Your task to perform on an android device: Open sound settings Image 0: 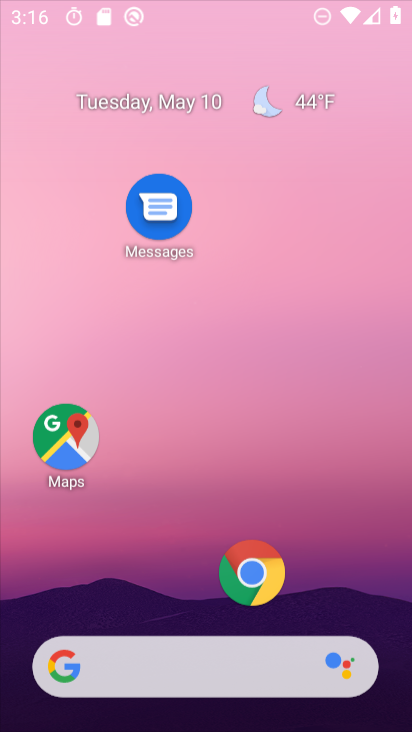
Step 0: drag from (188, 449) to (194, 201)
Your task to perform on an android device: Open sound settings Image 1: 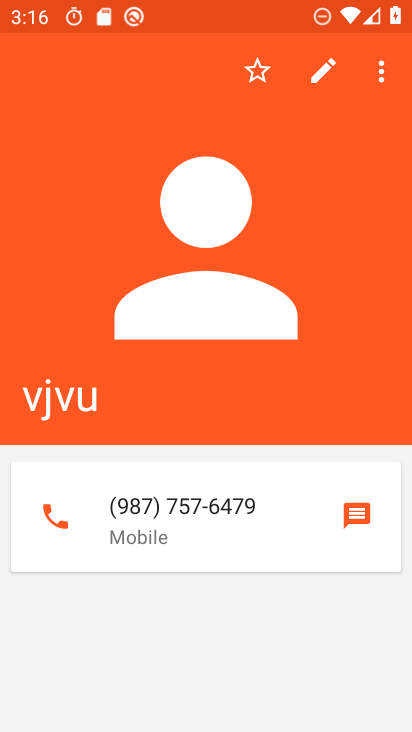
Step 1: press home button
Your task to perform on an android device: Open sound settings Image 2: 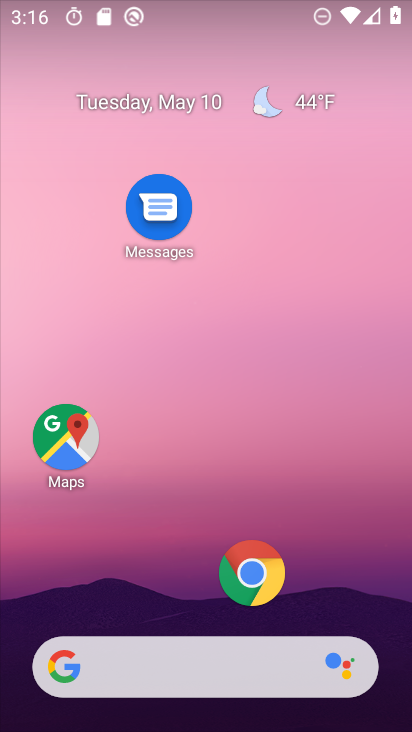
Step 2: drag from (172, 606) to (234, 180)
Your task to perform on an android device: Open sound settings Image 3: 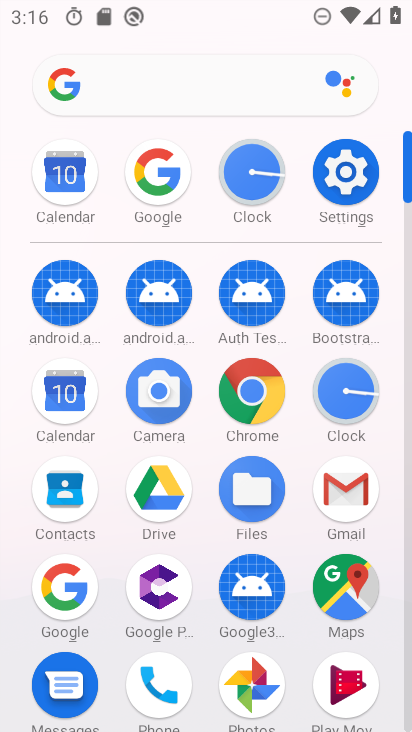
Step 3: click (329, 172)
Your task to perform on an android device: Open sound settings Image 4: 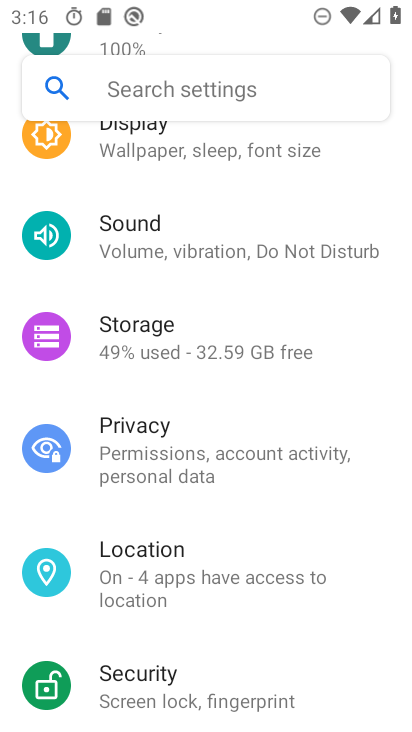
Step 4: click (149, 256)
Your task to perform on an android device: Open sound settings Image 5: 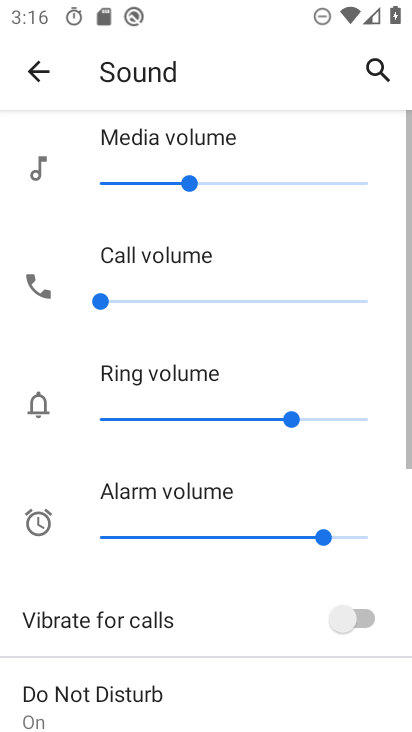
Step 5: task complete